Your task to perform on an android device: Open internet settings Image 0: 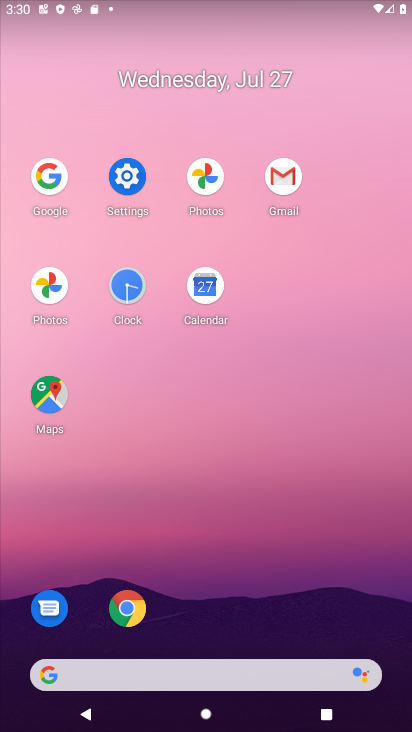
Step 0: click (123, 171)
Your task to perform on an android device: Open internet settings Image 1: 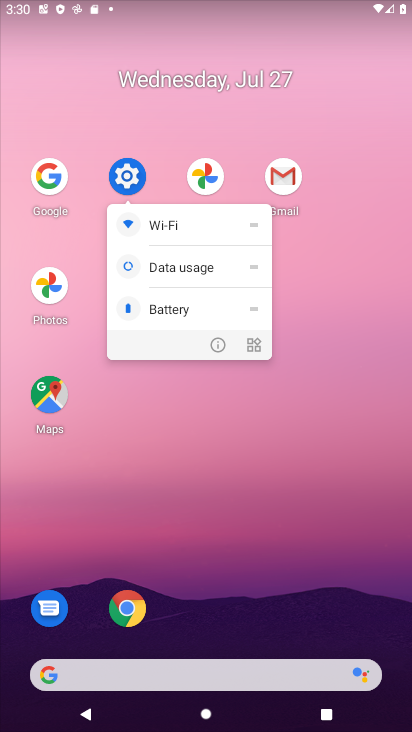
Step 1: click (125, 176)
Your task to perform on an android device: Open internet settings Image 2: 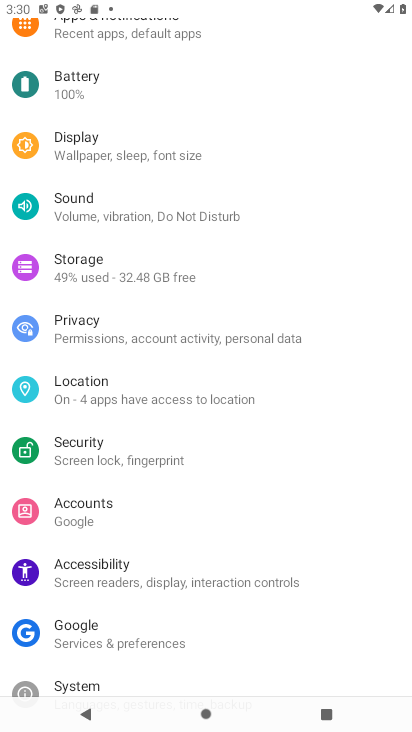
Step 2: drag from (167, 183) to (284, 527)
Your task to perform on an android device: Open internet settings Image 3: 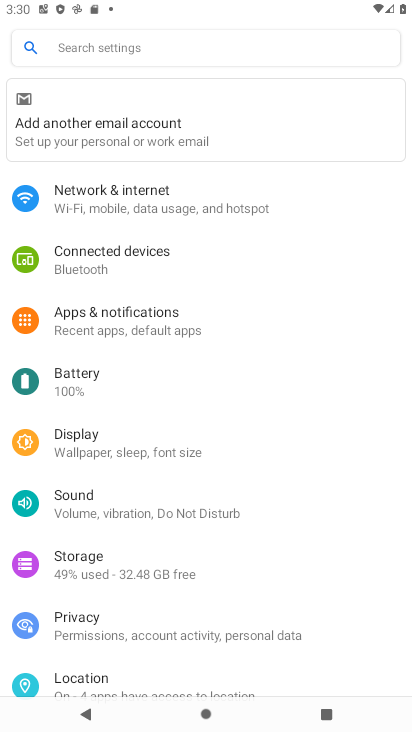
Step 3: click (245, 215)
Your task to perform on an android device: Open internet settings Image 4: 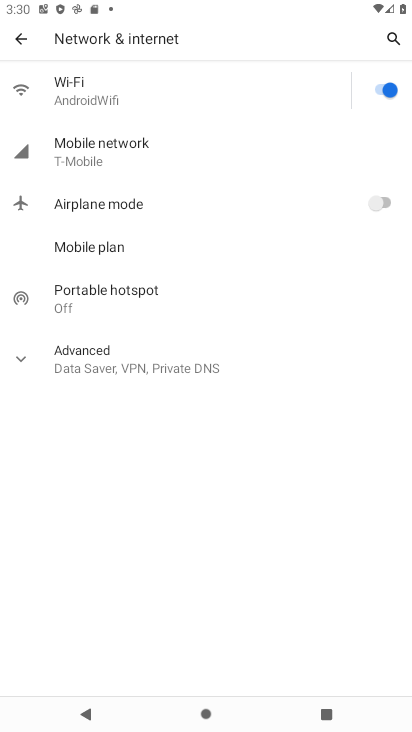
Step 4: task complete